Your task to perform on an android device: turn off picture-in-picture Image 0: 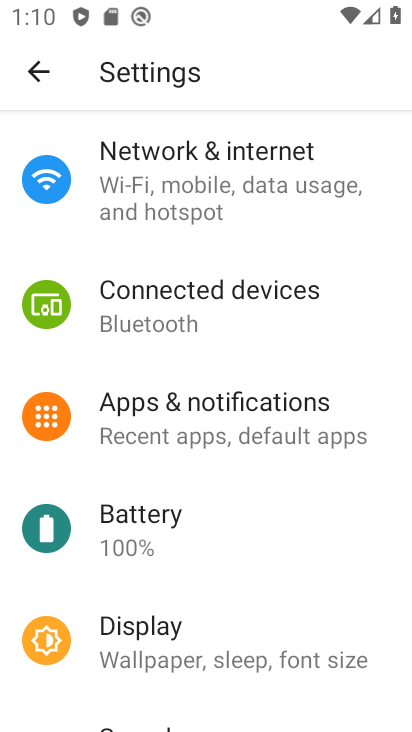
Step 0: click (297, 421)
Your task to perform on an android device: turn off picture-in-picture Image 1: 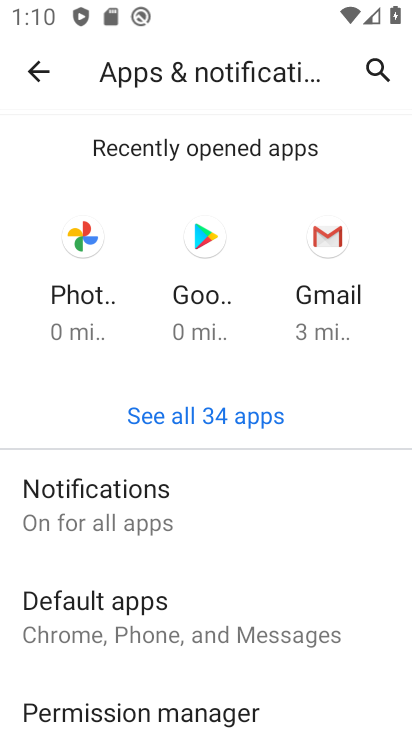
Step 1: drag from (187, 645) to (332, 296)
Your task to perform on an android device: turn off picture-in-picture Image 2: 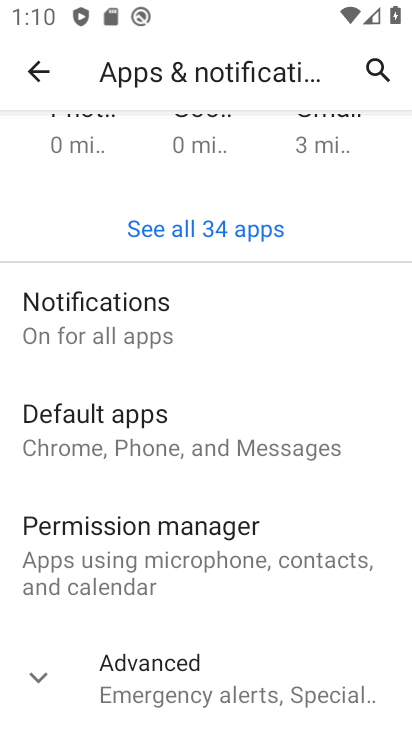
Step 2: click (264, 709)
Your task to perform on an android device: turn off picture-in-picture Image 3: 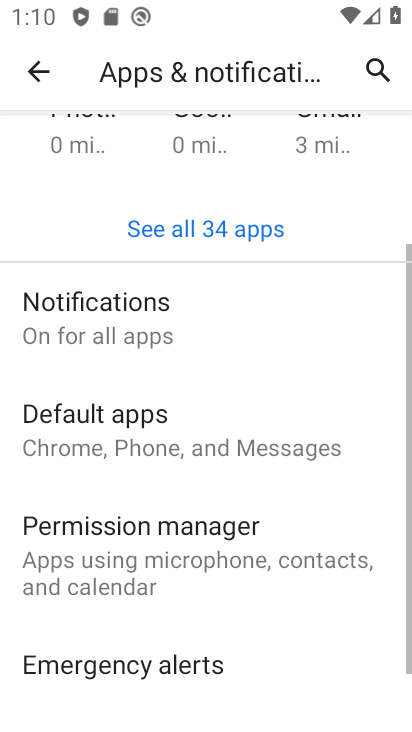
Step 3: drag from (264, 707) to (353, 327)
Your task to perform on an android device: turn off picture-in-picture Image 4: 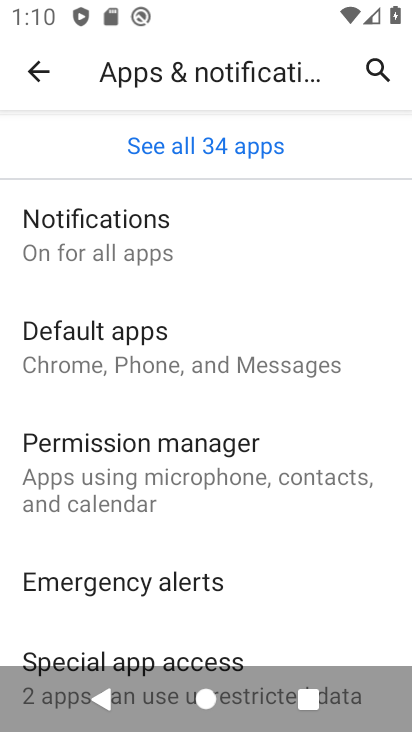
Step 4: click (180, 652)
Your task to perform on an android device: turn off picture-in-picture Image 5: 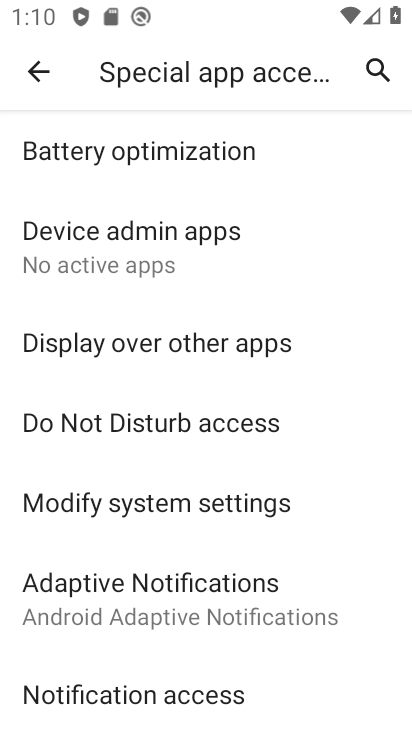
Step 5: drag from (171, 500) to (291, 147)
Your task to perform on an android device: turn off picture-in-picture Image 6: 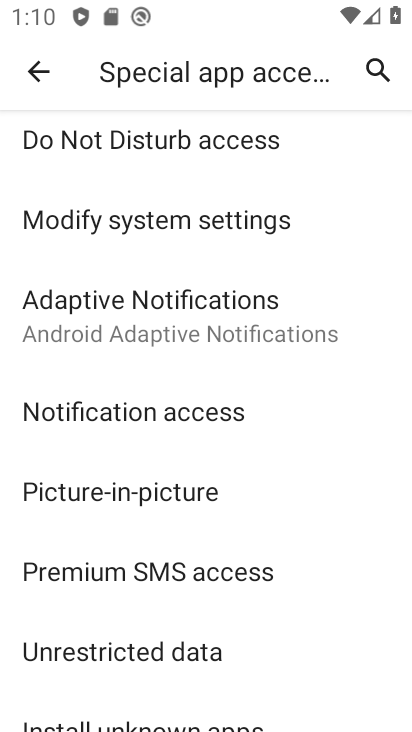
Step 6: click (170, 493)
Your task to perform on an android device: turn off picture-in-picture Image 7: 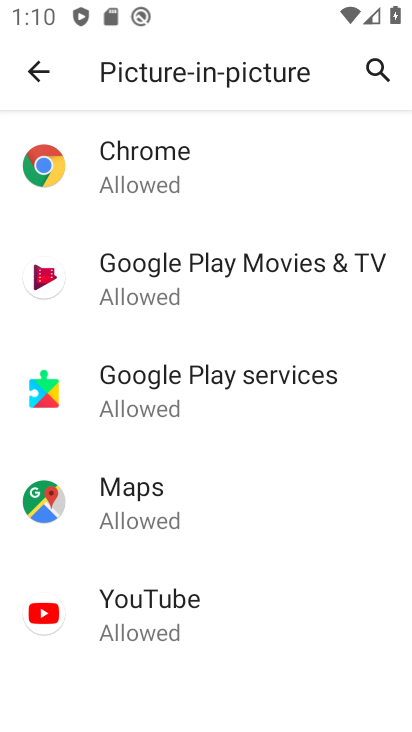
Step 7: click (208, 186)
Your task to perform on an android device: turn off picture-in-picture Image 8: 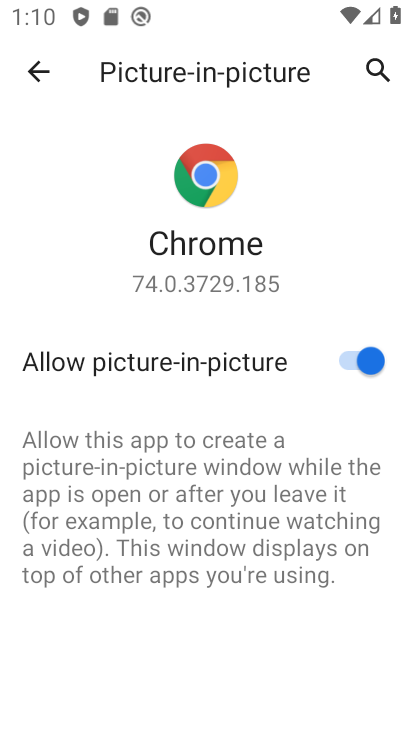
Step 8: click (355, 359)
Your task to perform on an android device: turn off picture-in-picture Image 9: 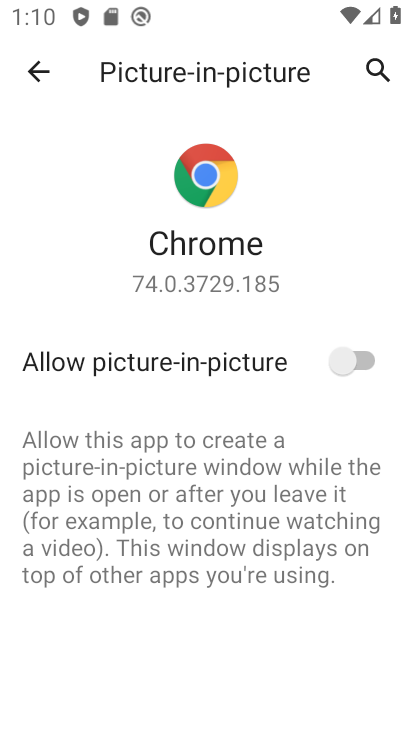
Step 9: press back button
Your task to perform on an android device: turn off picture-in-picture Image 10: 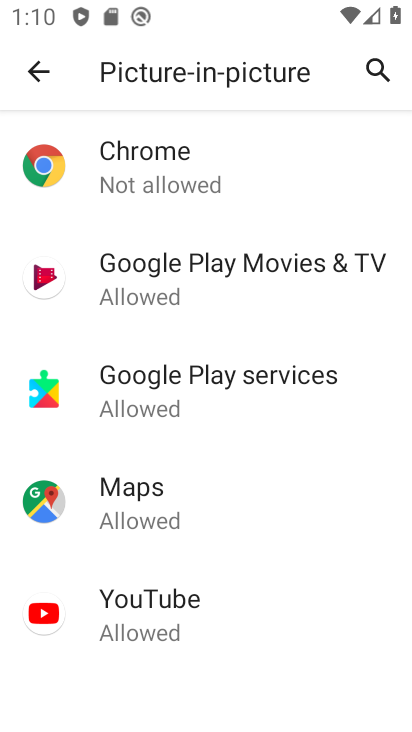
Step 10: click (256, 283)
Your task to perform on an android device: turn off picture-in-picture Image 11: 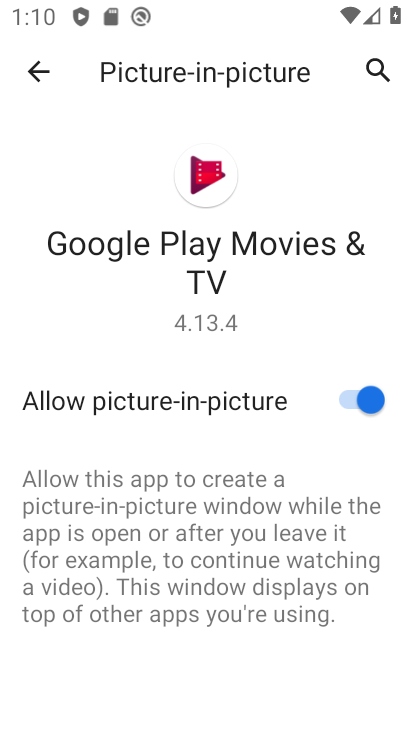
Step 11: click (349, 393)
Your task to perform on an android device: turn off picture-in-picture Image 12: 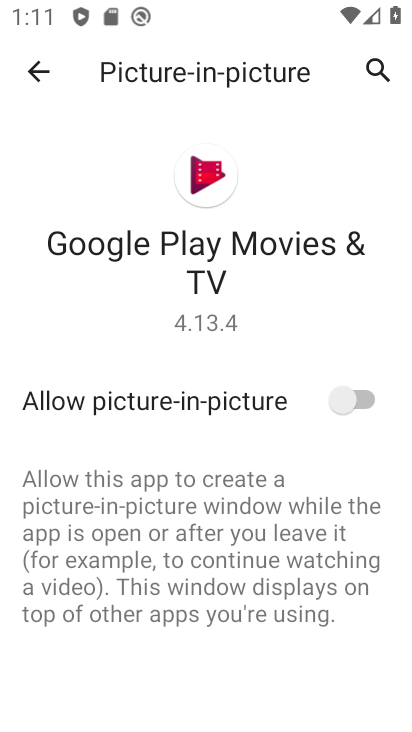
Step 12: press back button
Your task to perform on an android device: turn off picture-in-picture Image 13: 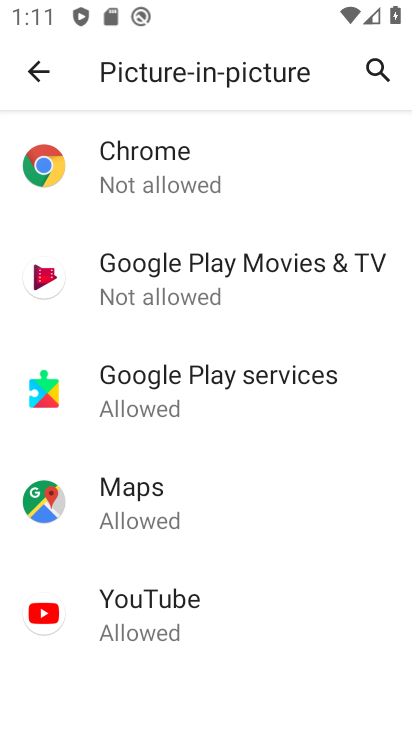
Step 13: click (322, 376)
Your task to perform on an android device: turn off picture-in-picture Image 14: 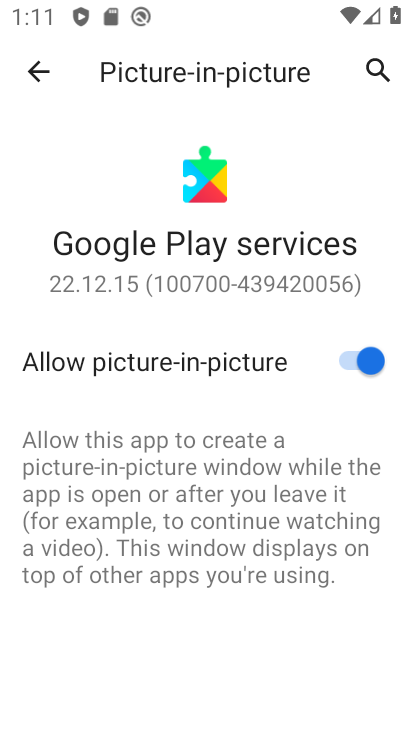
Step 14: click (344, 355)
Your task to perform on an android device: turn off picture-in-picture Image 15: 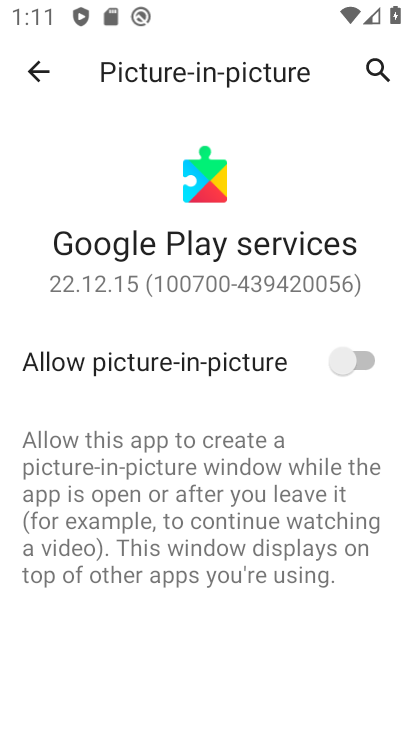
Step 15: press back button
Your task to perform on an android device: turn off picture-in-picture Image 16: 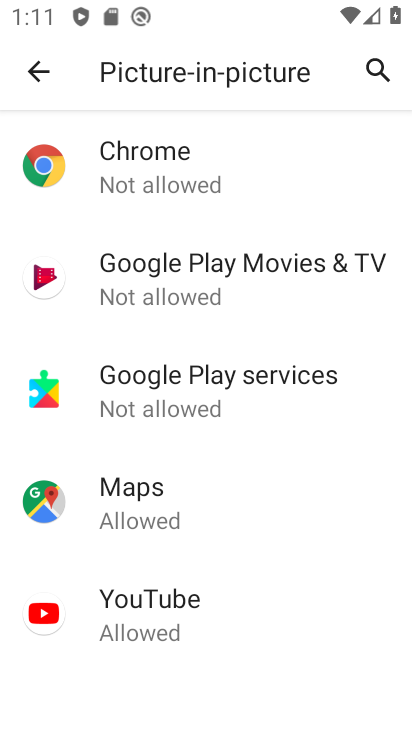
Step 16: click (255, 510)
Your task to perform on an android device: turn off picture-in-picture Image 17: 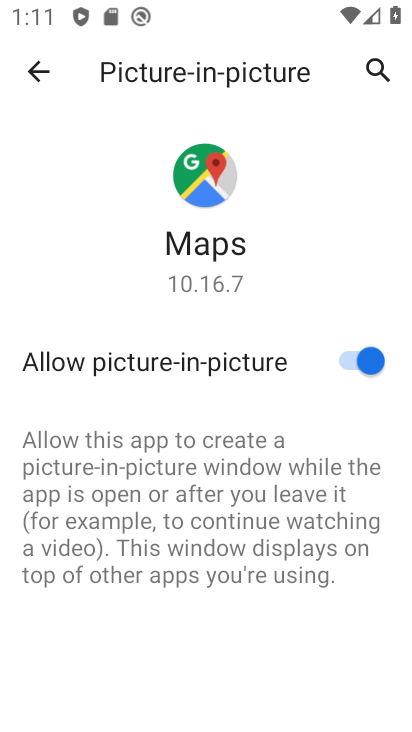
Step 17: click (367, 359)
Your task to perform on an android device: turn off picture-in-picture Image 18: 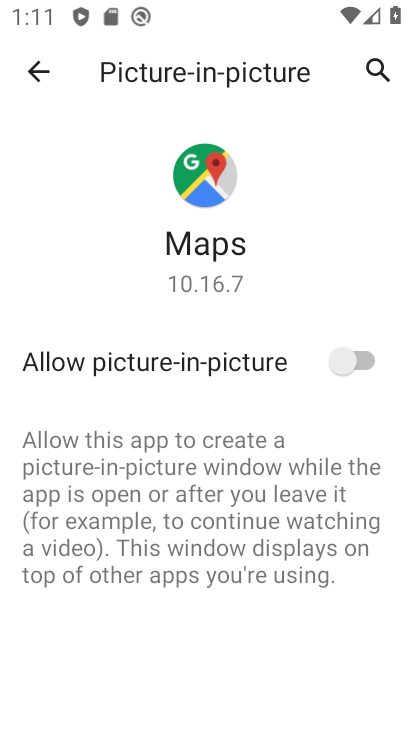
Step 18: press back button
Your task to perform on an android device: turn off picture-in-picture Image 19: 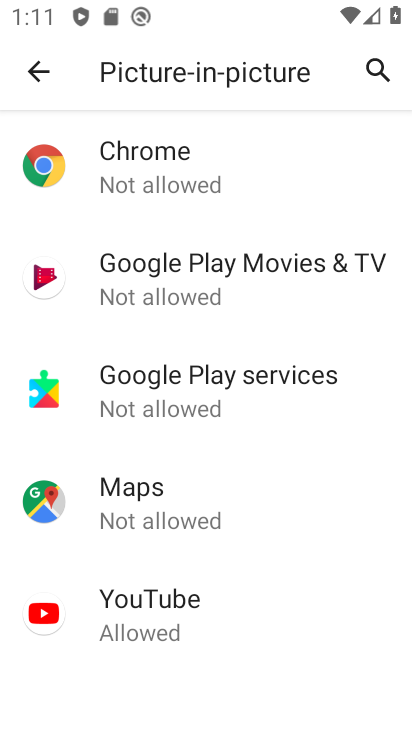
Step 19: click (237, 636)
Your task to perform on an android device: turn off picture-in-picture Image 20: 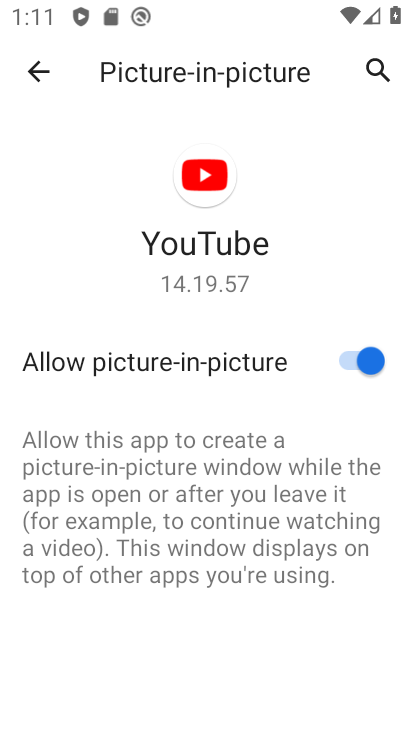
Step 20: click (360, 353)
Your task to perform on an android device: turn off picture-in-picture Image 21: 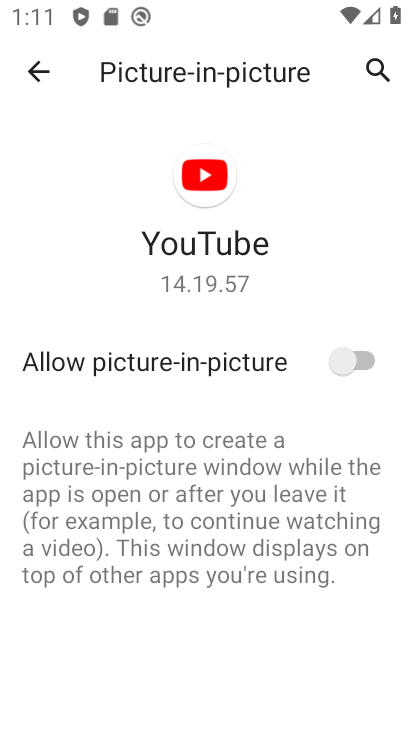
Step 21: task complete